Your task to perform on an android device: Open accessibility settings Image 0: 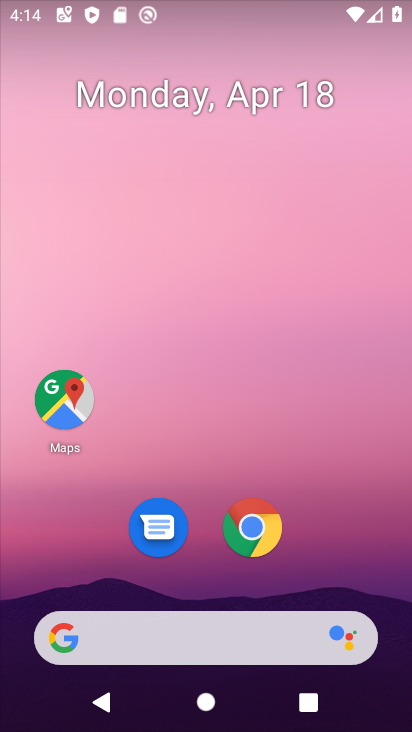
Step 0: drag from (209, 575) to (240, 122)
Your task to perform on an android device: Open accessibility settings Image 1: 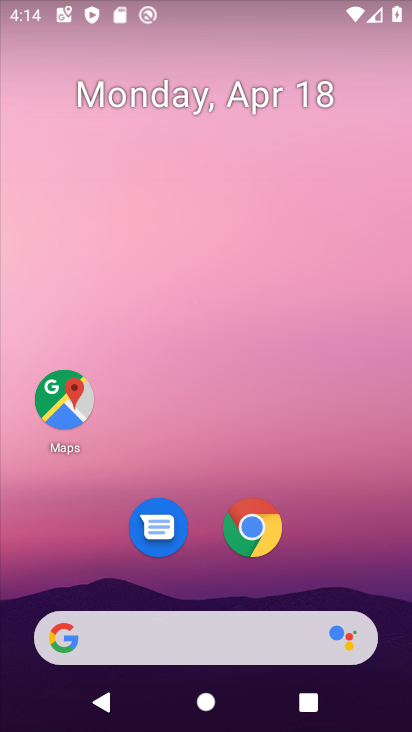
Step 1: drag from (201, 578) to (245, 86)
Your task to perform on an android device: Open accessibility settings Image 2: 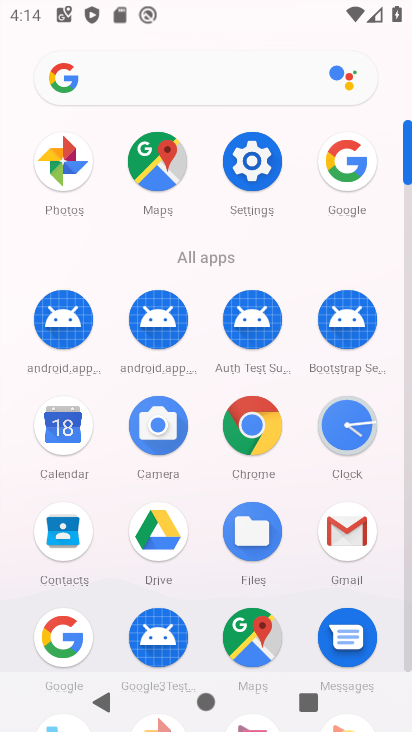
Step 2: click (249, 154)
Your task to perform on an android device: Open accessibility settings Image 3: 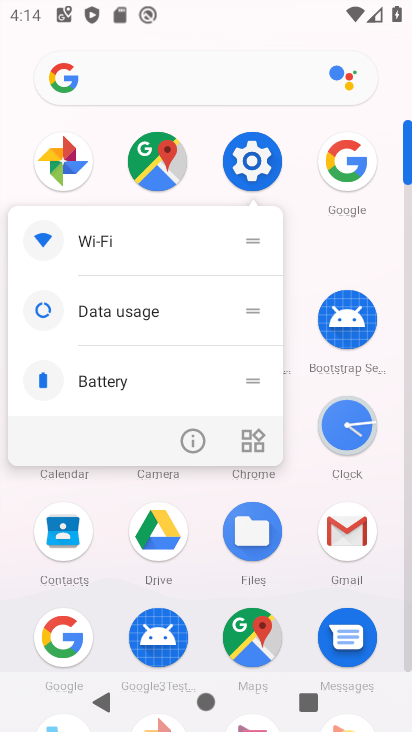
Step 3: click (249, 151)
Your task to perform on an android device: Open accessibility settings Image 4: 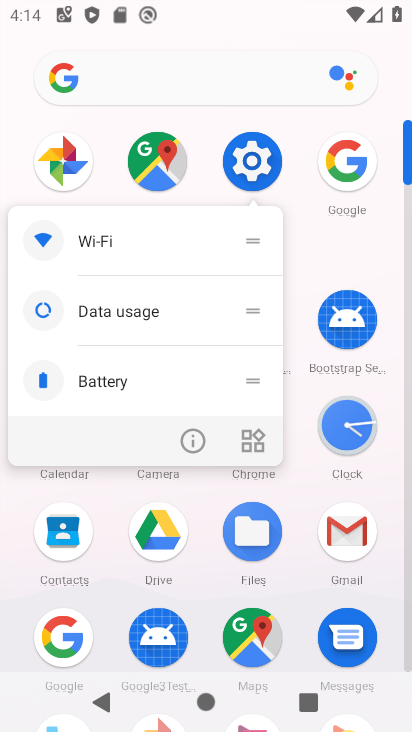
Step 4: click (246, 154)
Your task to perform on an android device: Open accessibility settings Image 5: 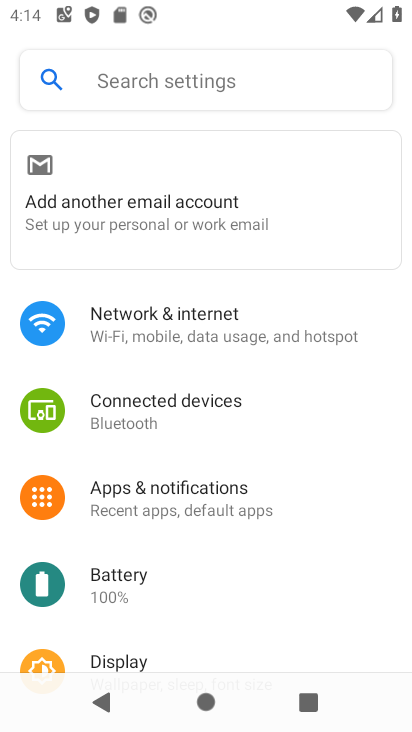
Step 5: drag from (185, 607) to (221, 143)
Your task to perform on an android device: Open accessibility settings Image 6: 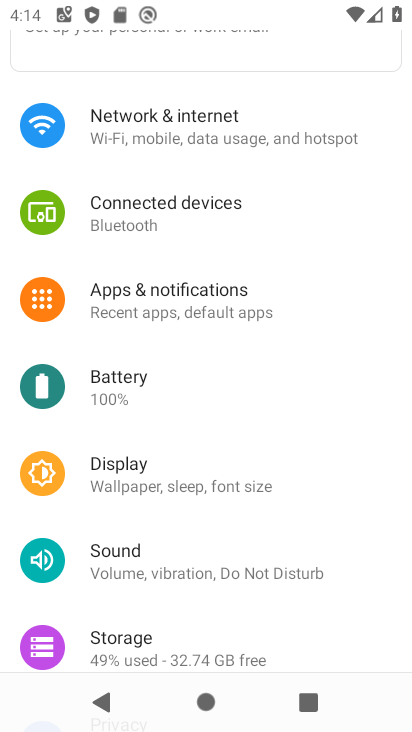
Step 6: drag from (196, 623) to (219, 36)
Your task to perform on an android device: Open accessibility settings Image 7: 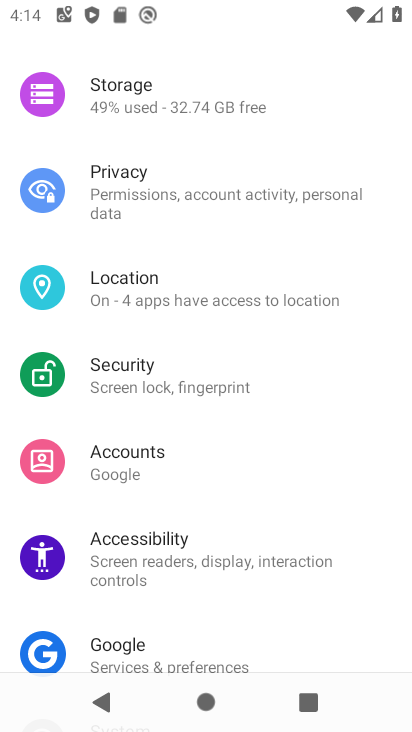
Step 7: drag from (173, 605) to (167, 58)
Your task to perform on an android device: Open accessibility settings Image 8: 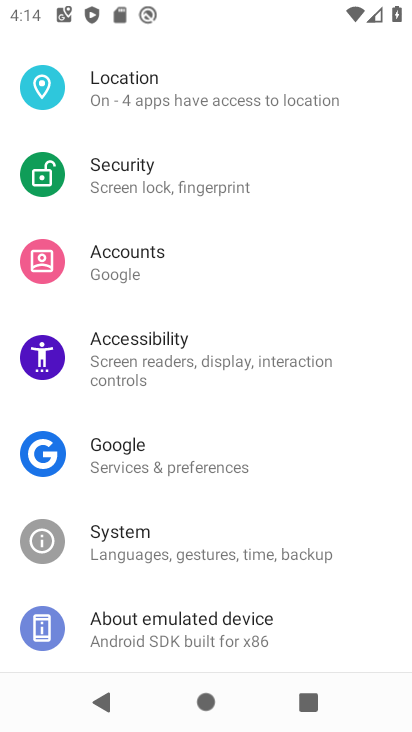
Step 8: click (201, 336)
Your task to perform on an android device: Open accessibility settings Image 9: 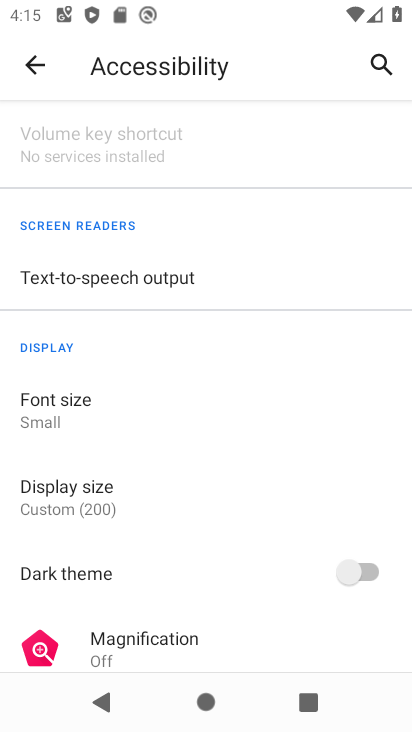
Step 9: task complete